Your task to perform on an android device: Search for pizza restaurants on Maps Image 0: 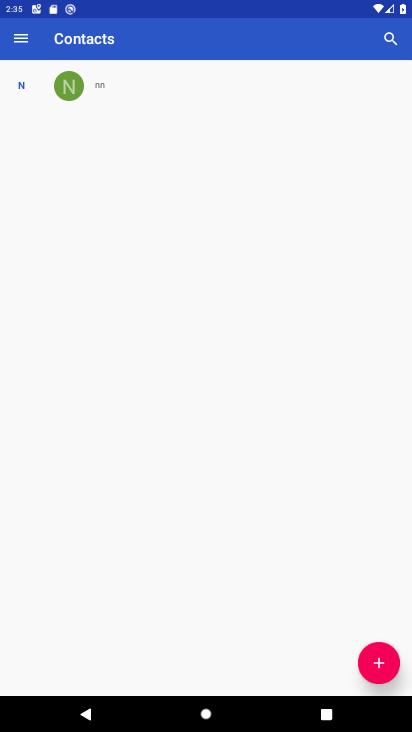
Step 0: press home button
Your task to perform on an android device: Search for pizza restaurants on Maps Image 1: 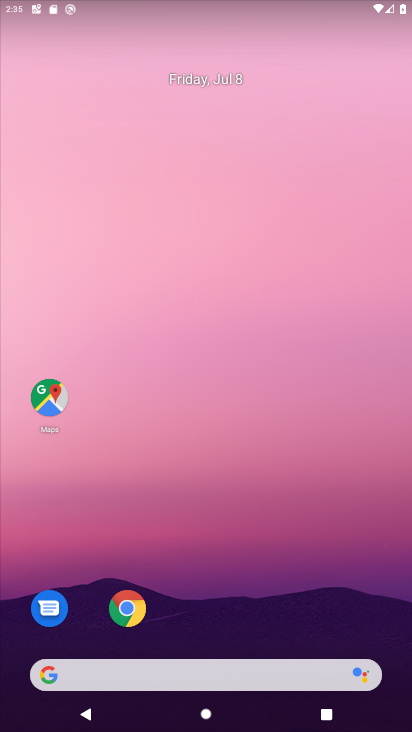
Step 1: drag from (272, 649) to (326, 120)
Your task to perform on an android device: Search for pizza restaurants on Maps Image 2: 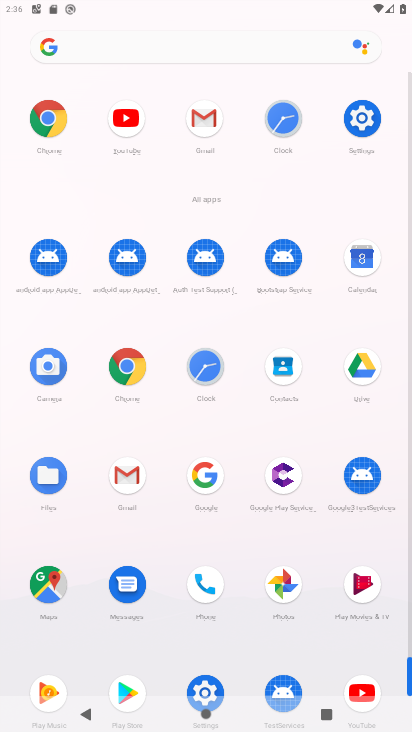
Step 2: click (38, 579)
Your task to perform on an android device: Search for pizza restaurants on Maps Image 3: 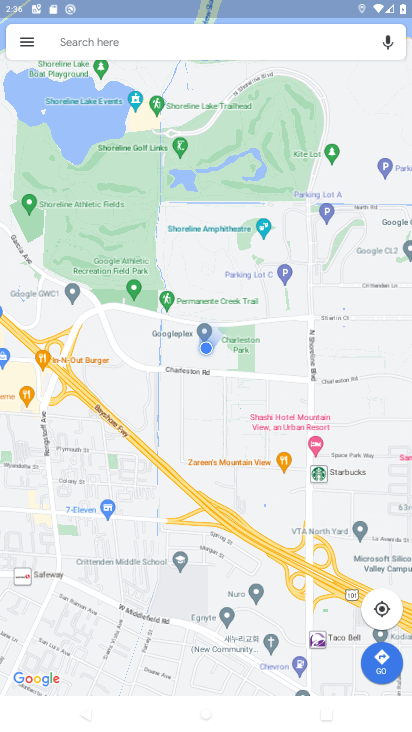
Step 3: click (185, 36)
Your task to perform on an android device: Search for pizza restaurants on Maps Image 4: 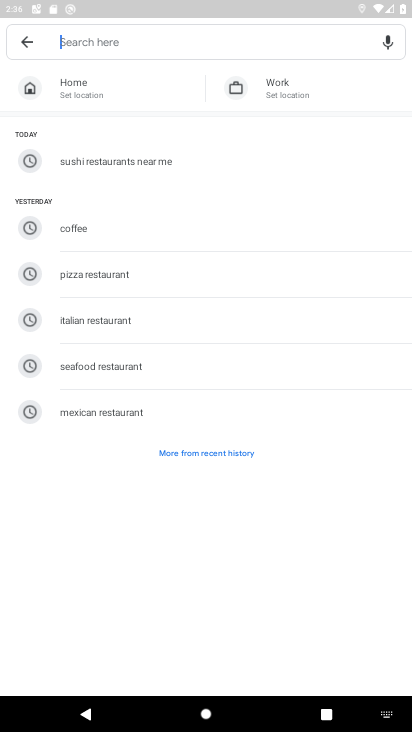
Step 4: type " pizza restaurant "
Your task to perform on an android device: Search for pizza restaurants on Maps Image 5: 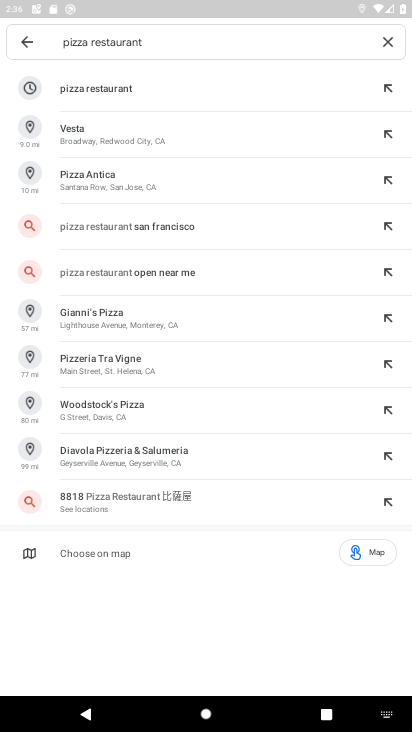
Step 5: click (155, 80)
Your task to perform on an android device: Search for pizza restaurants on Maps Image 6: 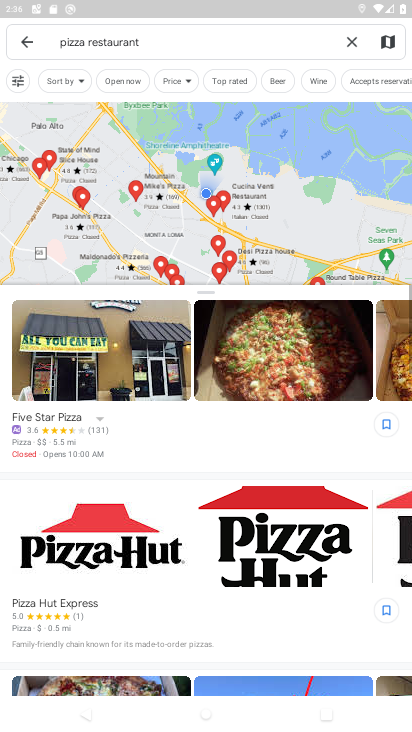
Step 6: task complete